Your task to perform on an android device: open device folders in google photos Image 0: 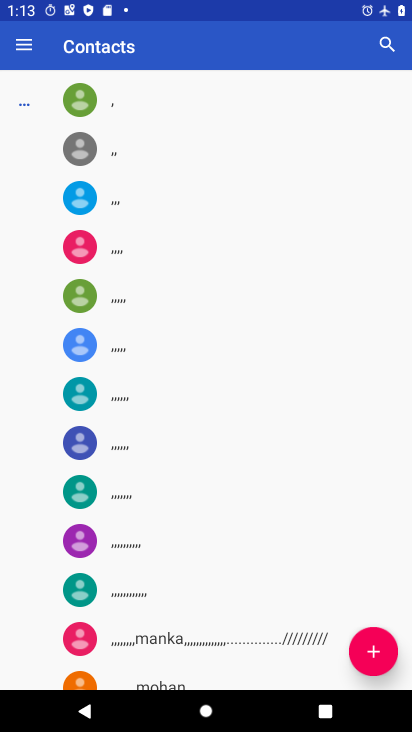
Step 0: press home button
Your task to perform on an android device: open device folders in google photos Image 1: 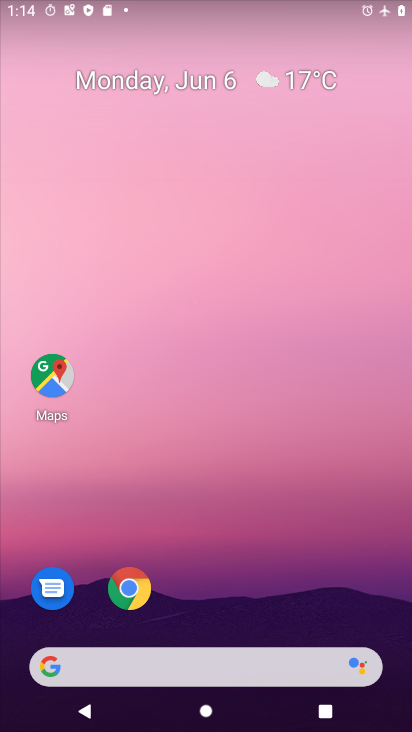
Step 1: drag from (300, 582) to (278, 42)
Your task to perform on an android device: open device folders in google photos Image 2: 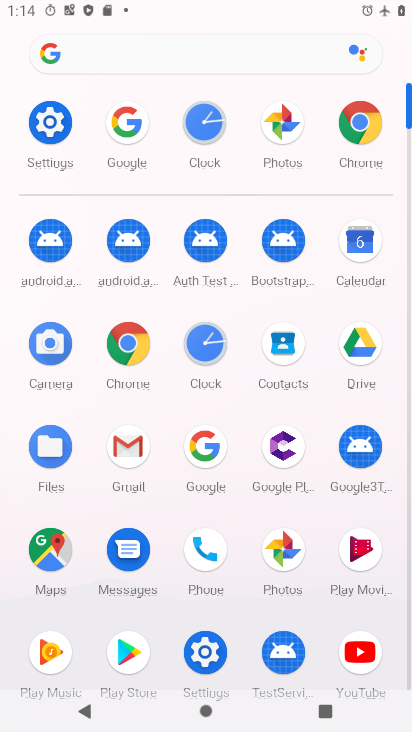
Step 2: click (290, 544)
Your task to perform on an android device: open device folders in google photos Image 3: 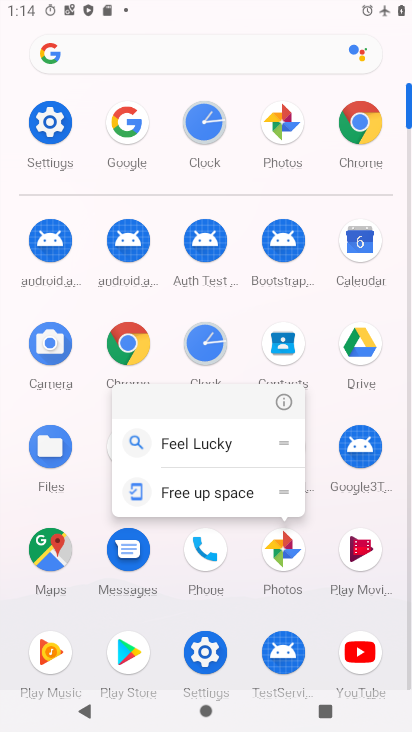
Step 3: click (290, 554)
Your task to perform on an android device: open device folders in google photos Image 4: 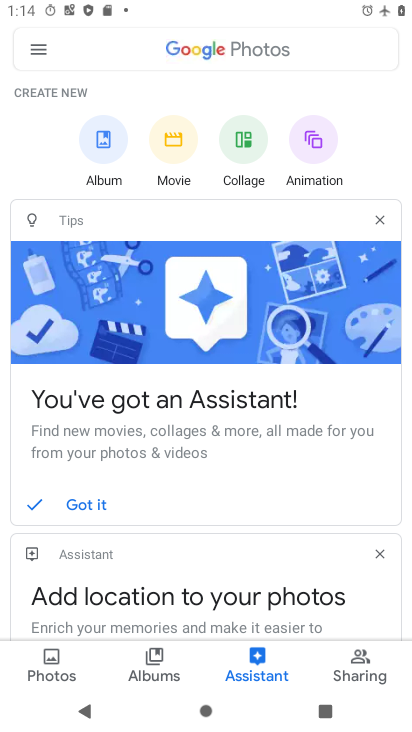
Step 4: click (25, 41)
Your task to perform on an android device: open device folders in google photos Image 5: 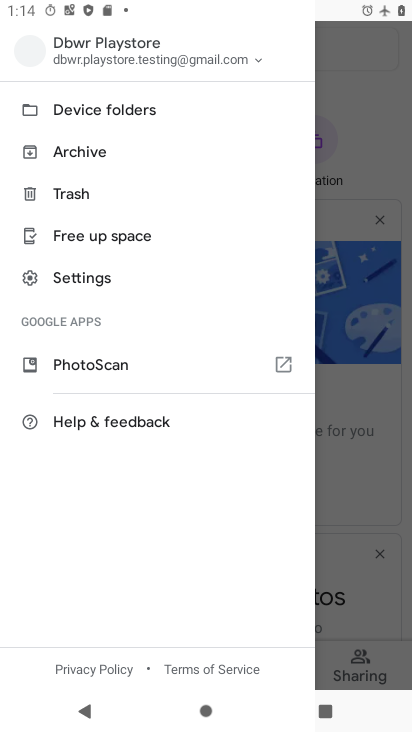
Step 5: click (53, 97)
Your task to perform on an android device: open device folders in google photos Image 6: 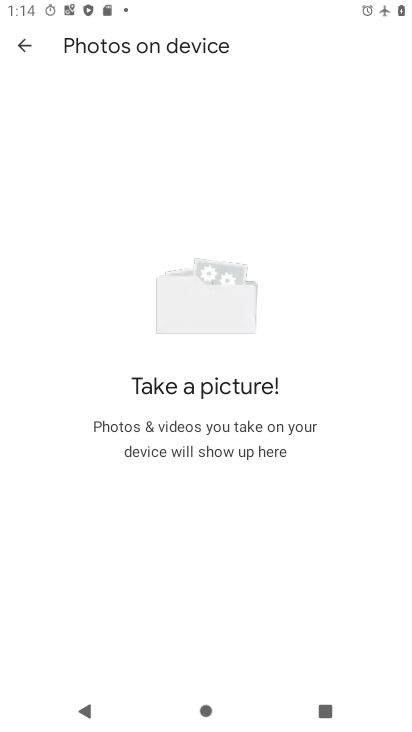
Step 6: task complete